Your task to perform on an android device: Turn on the flashlight Image 0: 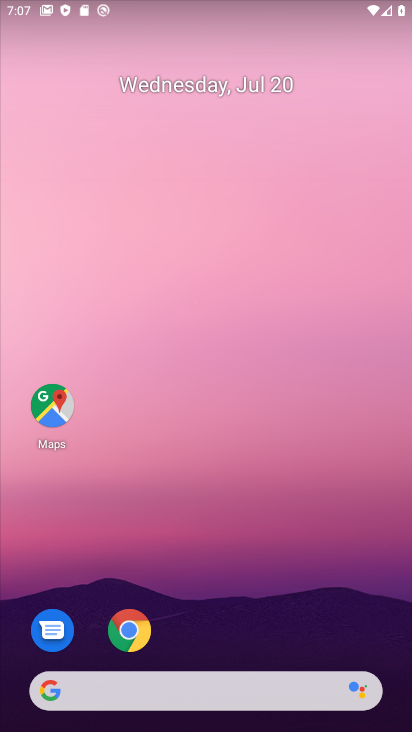
Step 0: drag from (126, 548) to (132, 150)
Your task to perform on an android device: Turn on the flashlight Image 1: 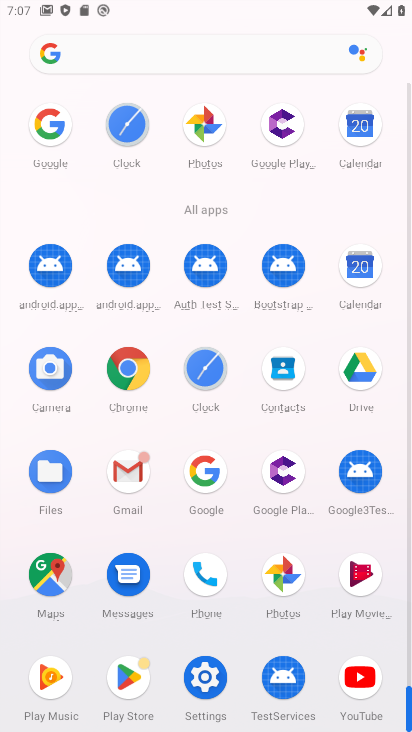
Step 1: click (202, 669)
Your task to perform on an android device: Turn on the flashlight Image 2: 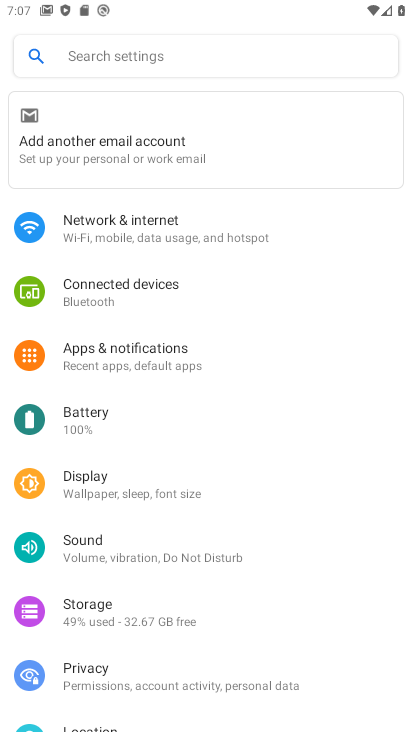
Step 2: click (117, 473)
Your task to perform on an android device: Turn on the flashlight Image 3: 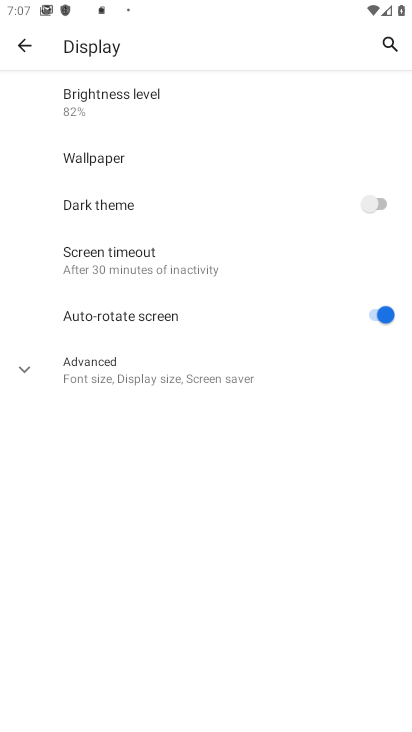
Step 3: task complete